Your task to perform on an android device: set an alarm Image 0: 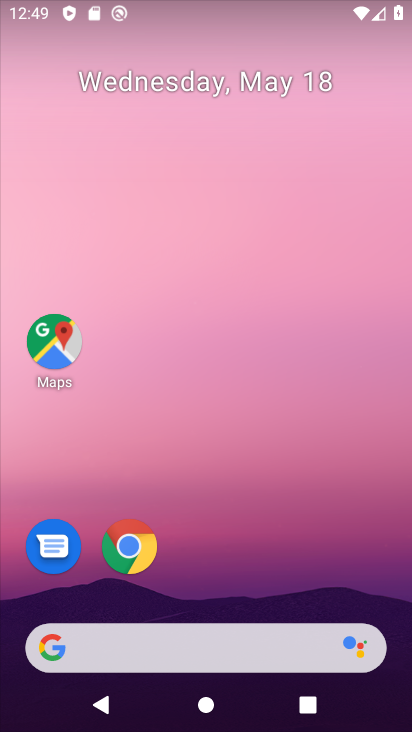
Step 0: drag from (241, 512) to (276, 154)
Your task to perform on an android device: set an alarm Image 1: 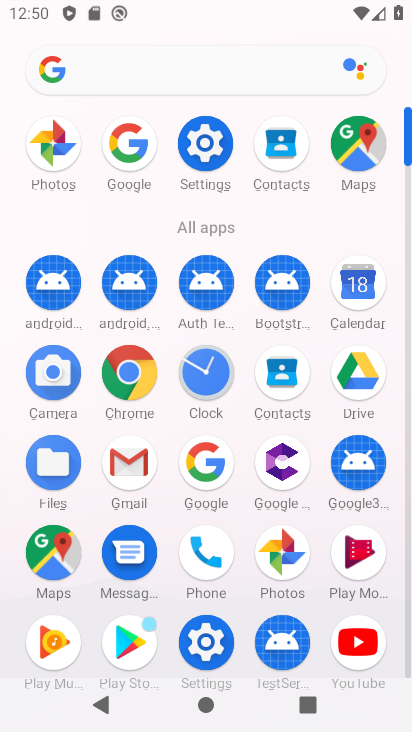
Step 1: click (215, 373)
Your task to perform on an android device: set an alarm Image 2: 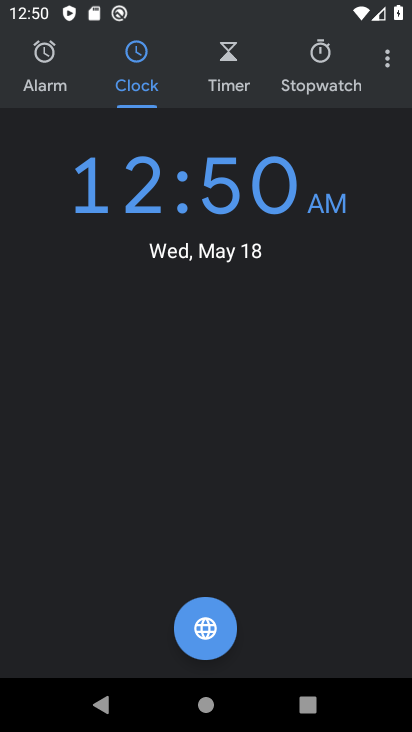
Step 2: click (59, 91)
Your task to perform on an android device: set an alarm Image 3: 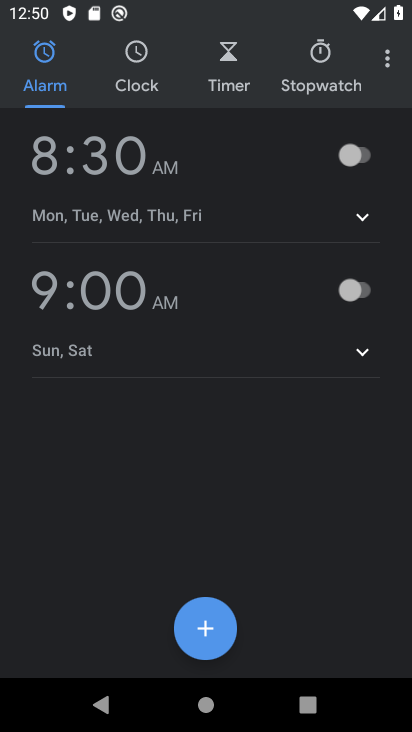
Step 3: click (212, 645)
Your task to perform on an android device: set an alarm Image 4: 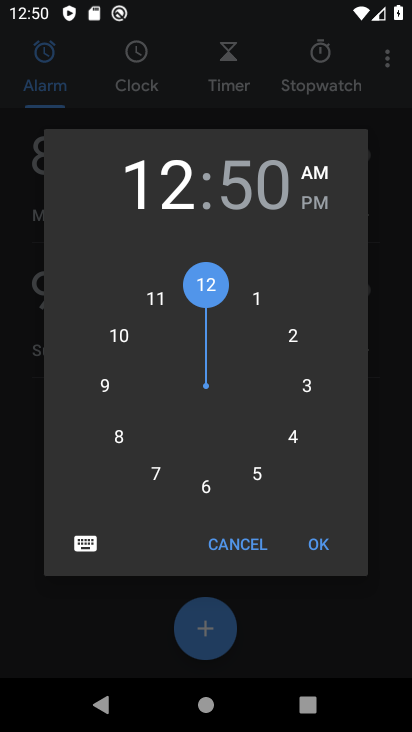
Step 4: click (316, 554)
Your task to perform on an android device: set an alarm Image 5: 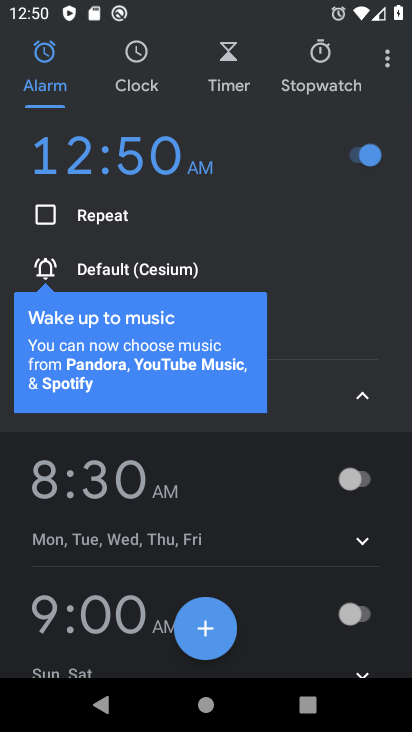
Step 5: task complete